Your task to perform on an android device: Go to Maps Image 0: 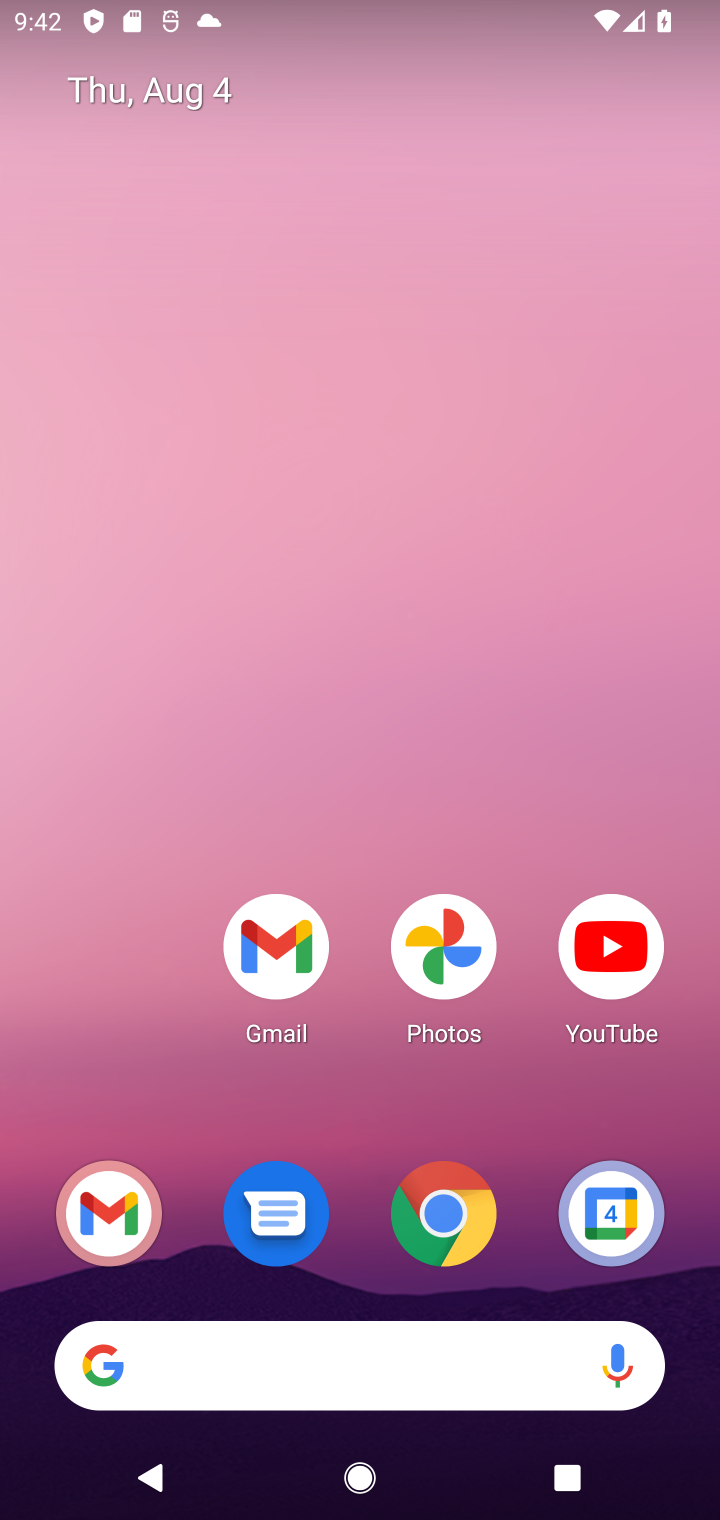
Step 0: drag from (361, 1150) to (398, 47)
Your task to perform on an android device: Go to Maps Image 1: 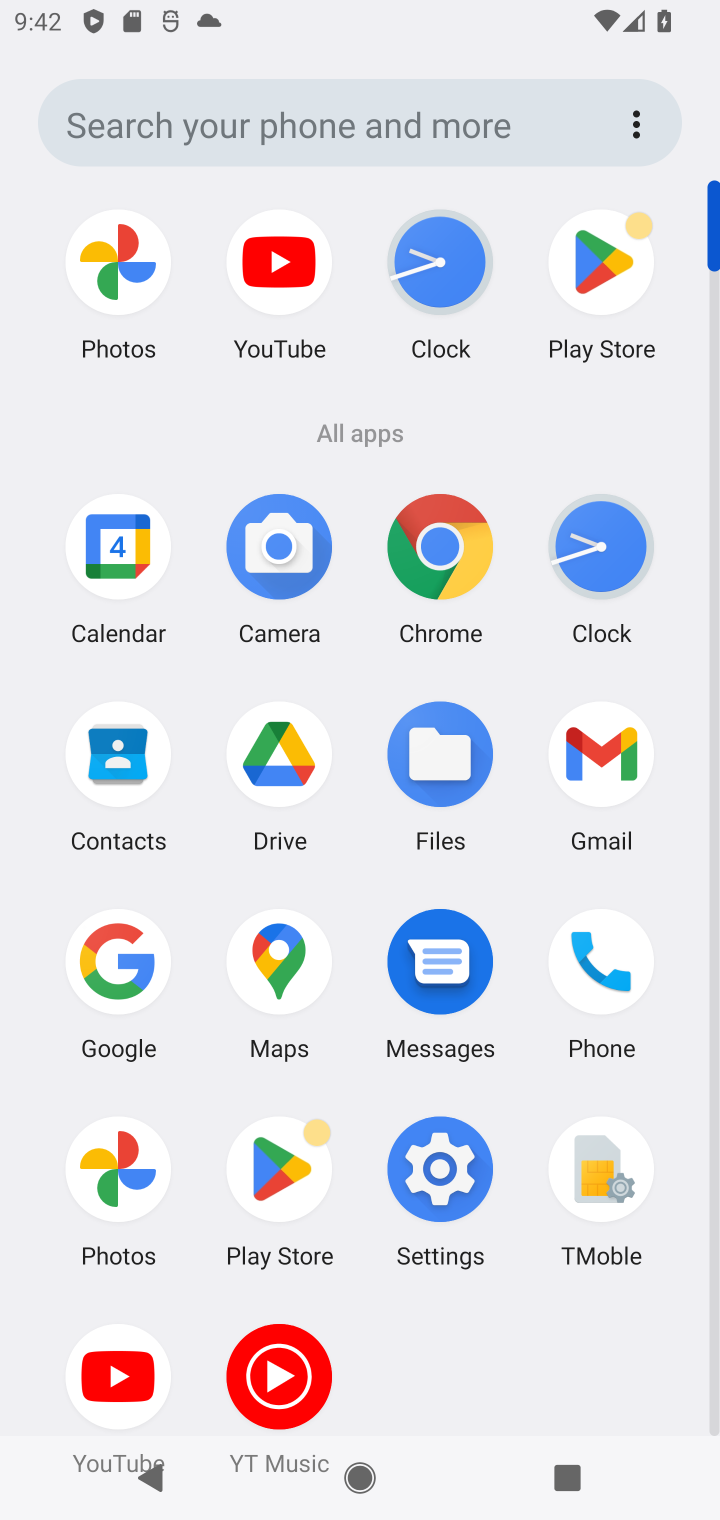
Step 1: click (278, 945)
Your task to perform on an android device: Go to Maps Image 2: 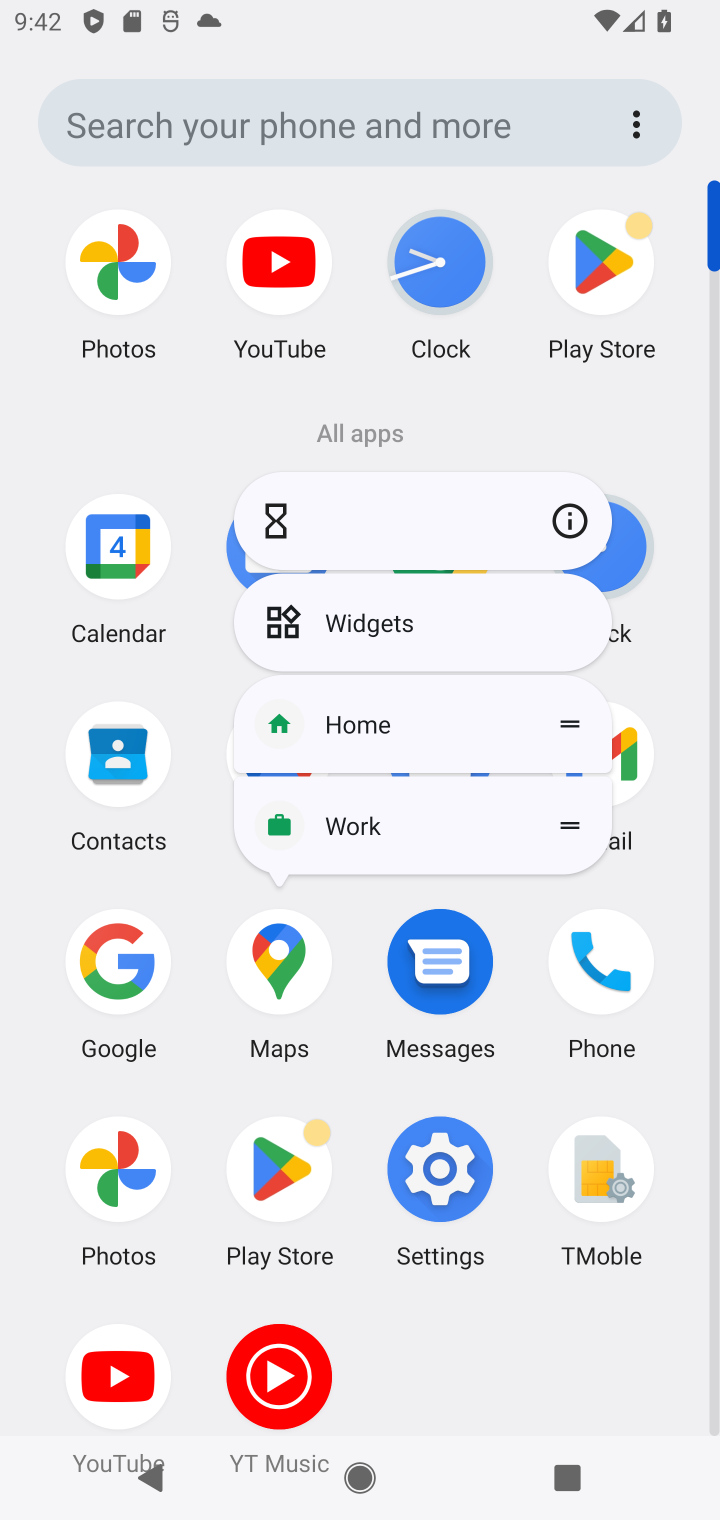
Step 2: click (270, 967)
Your task to perform on an android device: Go to Maps Image 3: 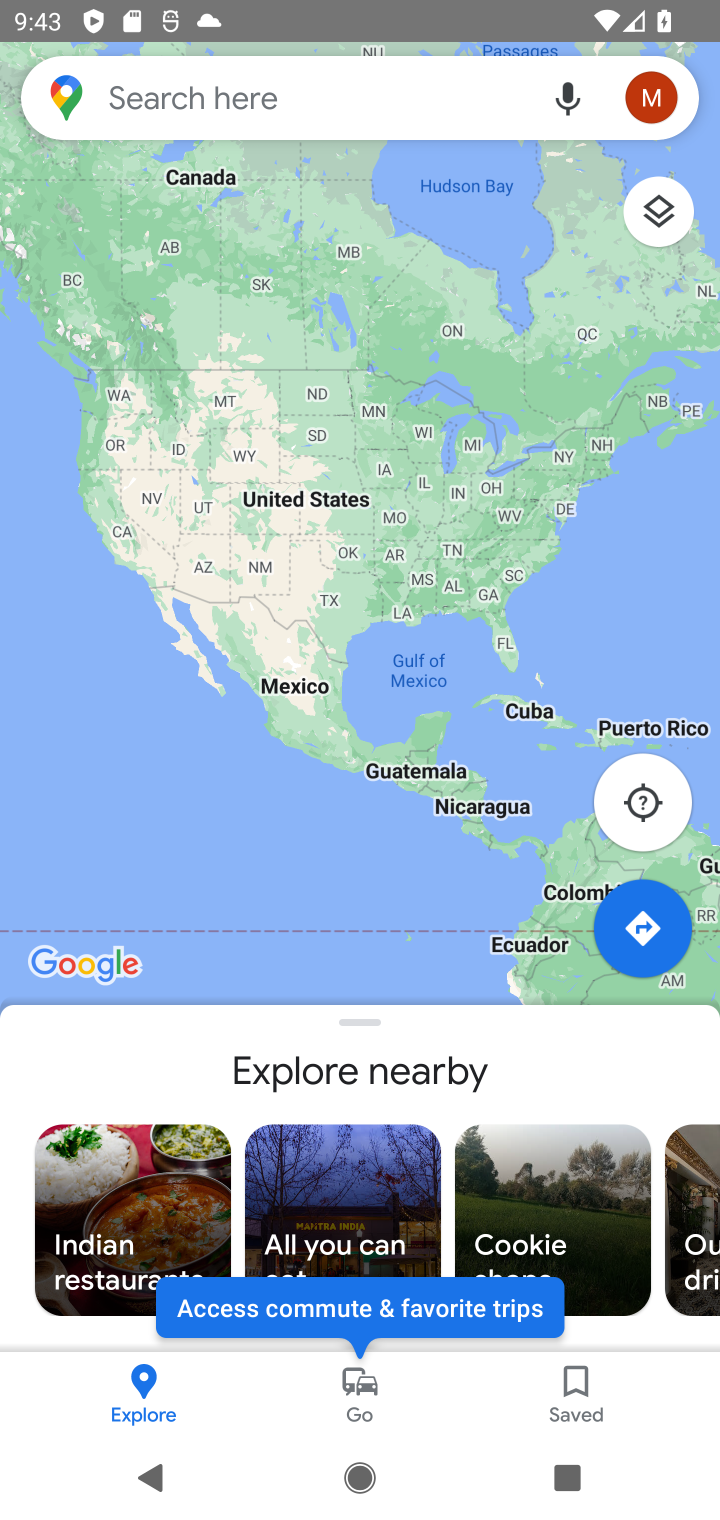
Step 3: task complete